Your task to perform on an android device: clear history in the chrome app Image 0: 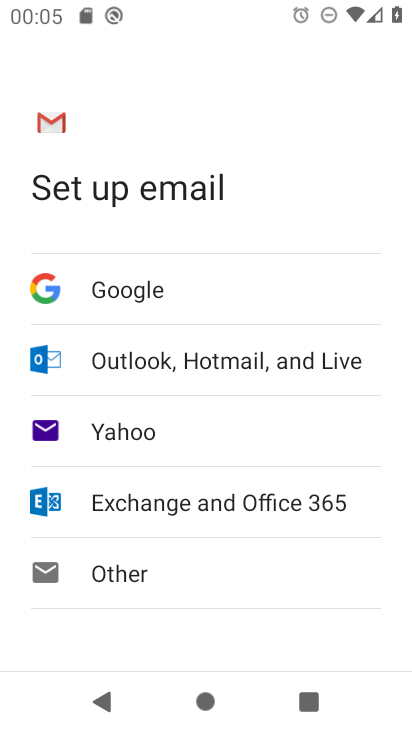
Step 0: press home button
Your task to perform on an android device: clear history in the chrome app Image 1: 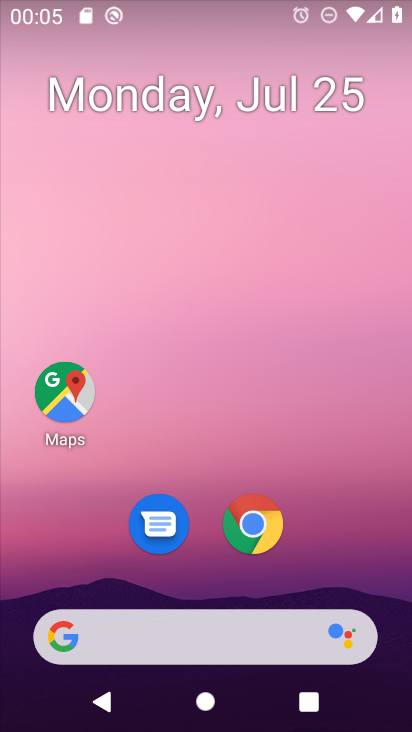
Step 1: click (243, 529)
Your task to perform on an android device: clear history in the chrome app Image 2: 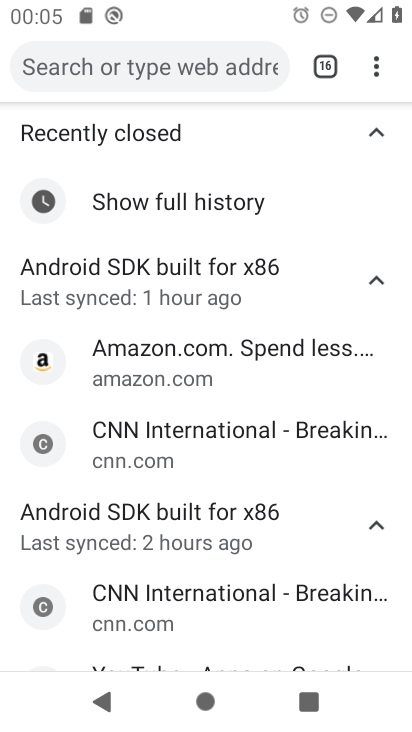
Step 2: drag from (374, 65) to (186, 382)
Your task to perform on an android device: clear history in the chrome app Image 3: 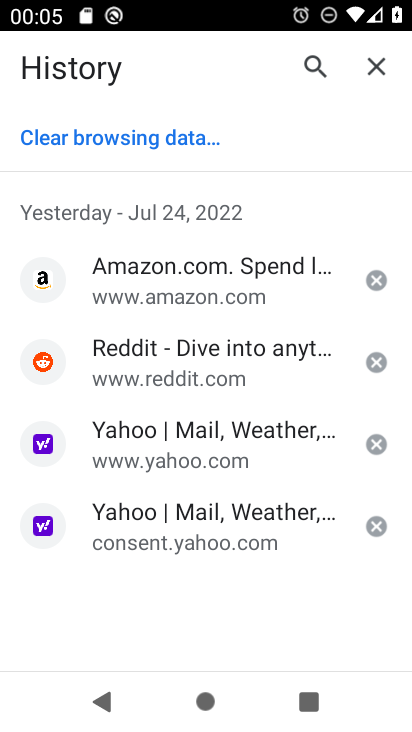
Step 3: click (112, 138)
Your task to perform on an android device: clear history in the chrome app Image 4: 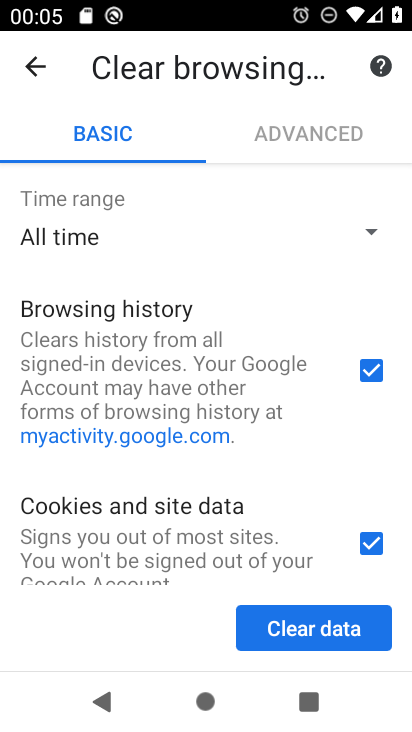
Step 4: drag from (296, 518) to (331, 211)
Your task to perform on an android device: clear history in the chrome app Image 5: 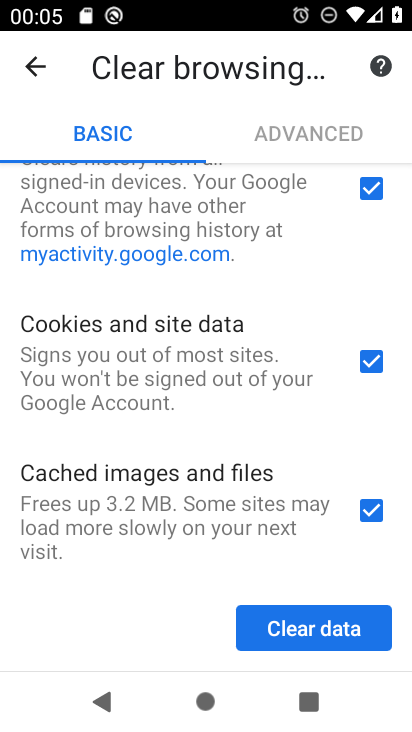
Step 5: click (320, 632)
Your task to perform on an android device: clear history in the chrome app Image 6: 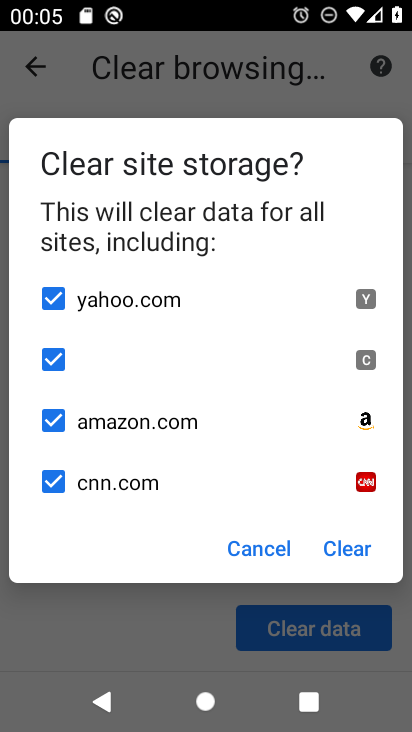
Step 6: click (335, 548)
Your task to perform on an android device: clear history in the chrome app Image 7: 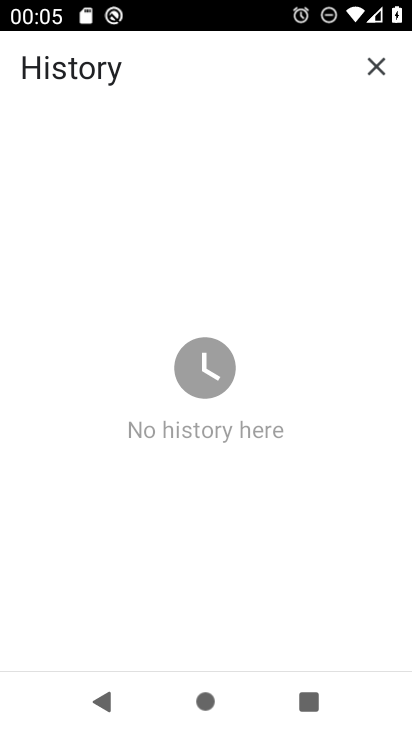
Step 7: task complete